Your task to perform on an android device: empty trash in the gmail app Image 0: 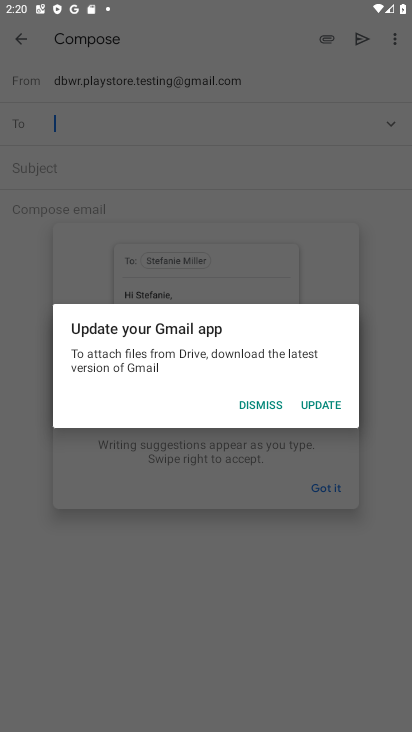
Step 0: press home button
Your task to perform on an android device: empty trash in the gmail app Image 1: 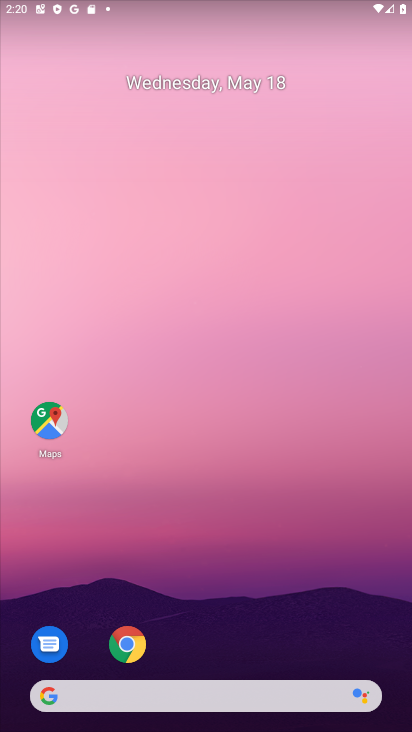
Step 1: drag from (223, 619) to (161, 136)
Your task to perform on an android device: empty trash in the gmail app Image 2: 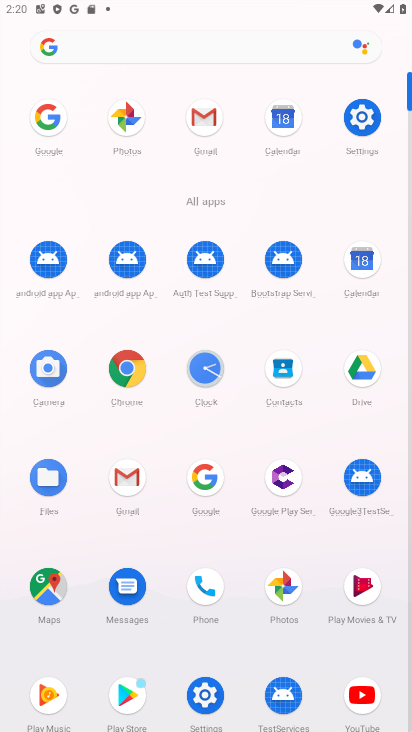
Step 2: click (200, 117)
Your task to perform on an android device: empty trash in the gmail app Image 3: 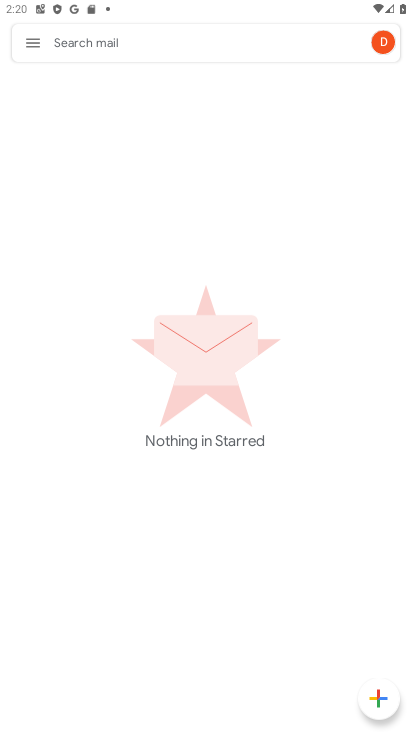
Step 3: click (34, 44)
Your task to perform on an android device: empty trash in the gmail app Image 4: 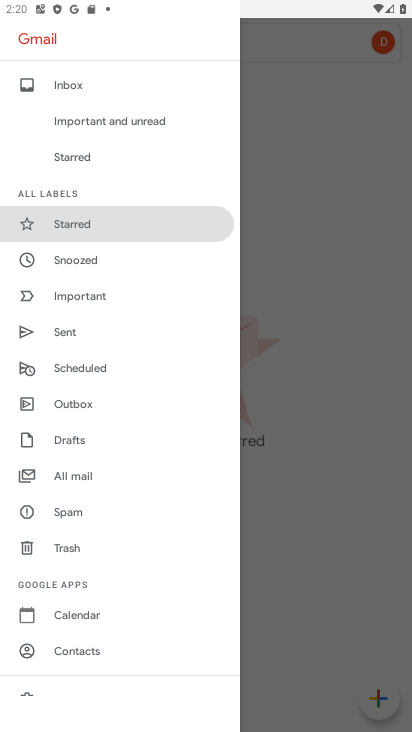
Step 4: click (64, 547)
Your task to perform on an android device: empty trash in the gmail app Image 5: 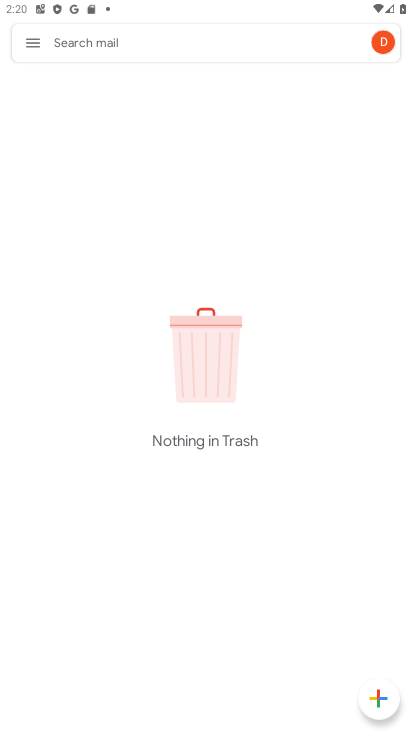
Step 5: task complete